Your task to perform on an android device: Go to ESPN.com Image 0: 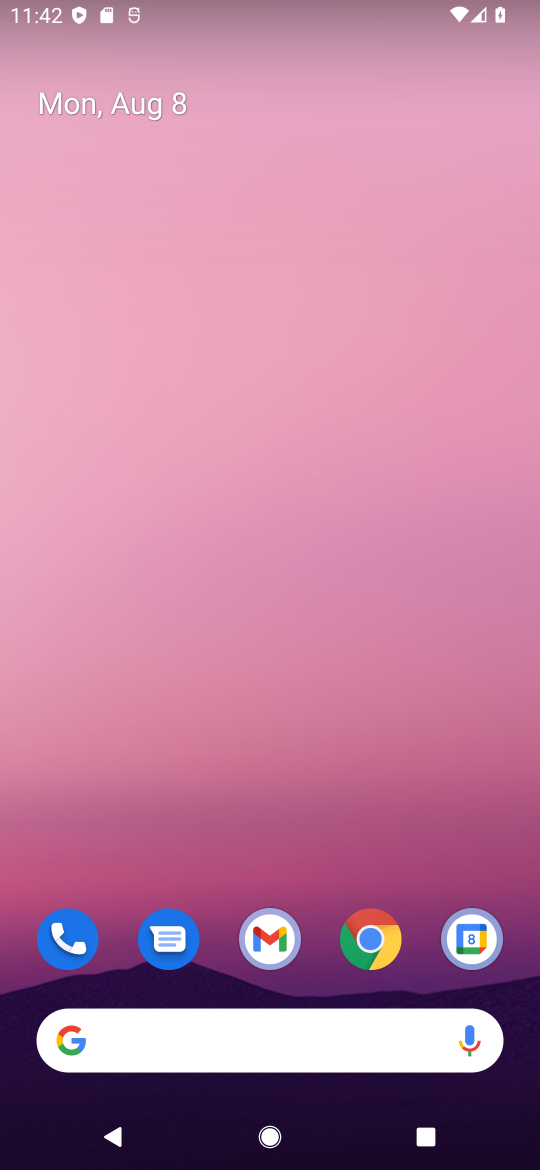
Step 0: click (366, 934)
Your task to perform on an android device: Go to ESPN.com Image 1: 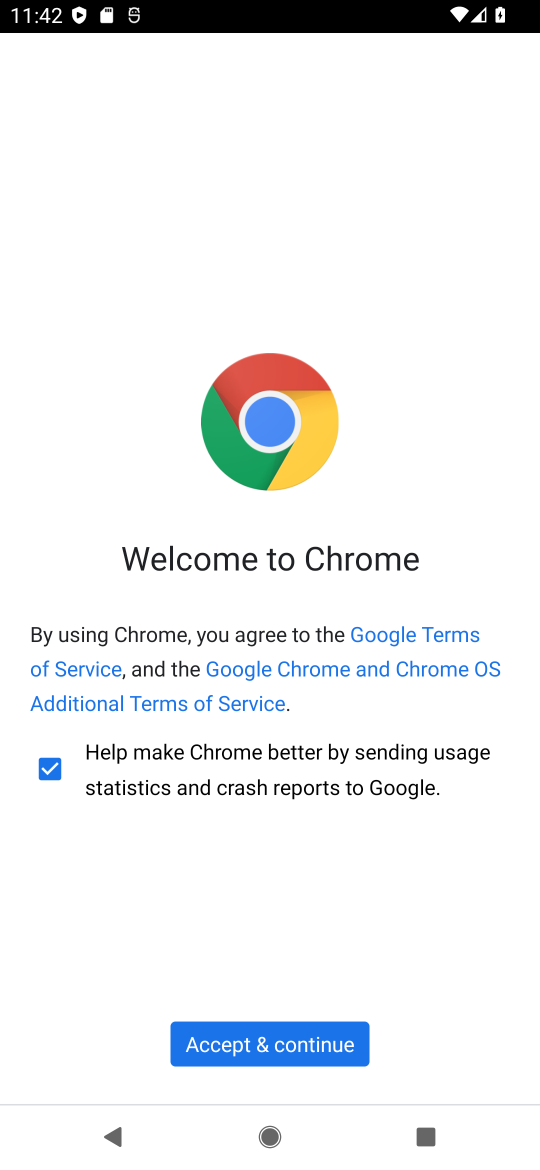
Step 1: click (294, 1054)
Your task to perform on an android device: Go to ESPN.com Image 2: 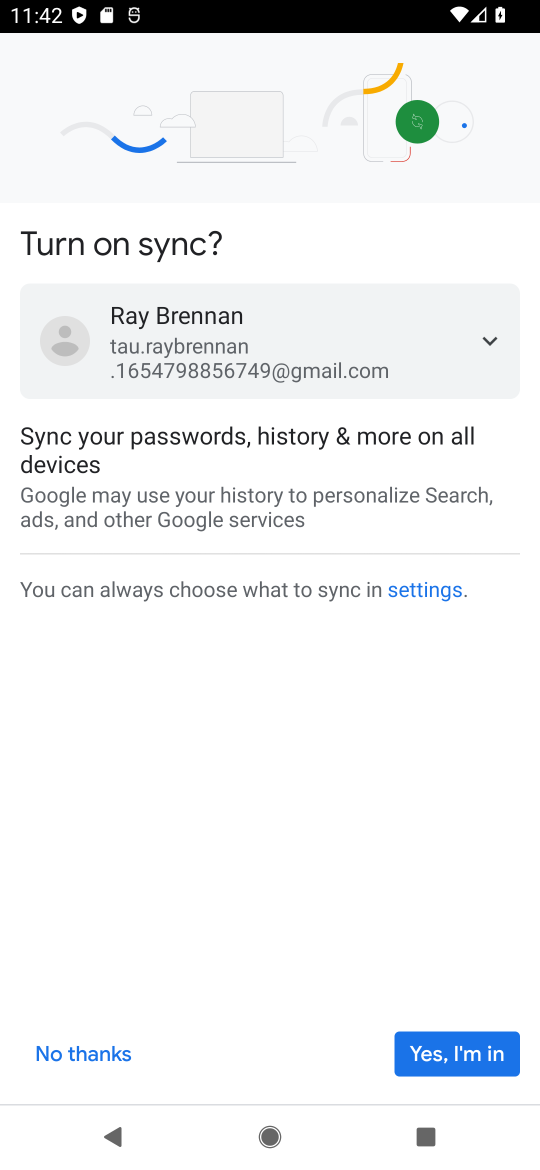
Step 2: click (434, 1049)
Your task to perform on an android device: Go to ESPN.com Image 3: 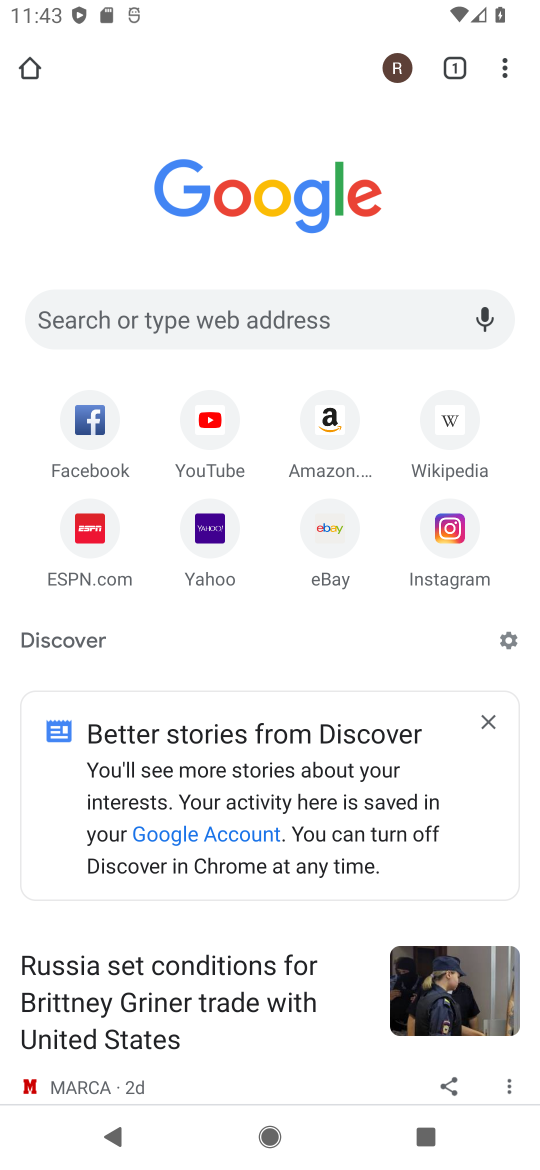
Step 3: click (95, 535)
Your task to perform on an android device: Go to ESPN.com Image 4: 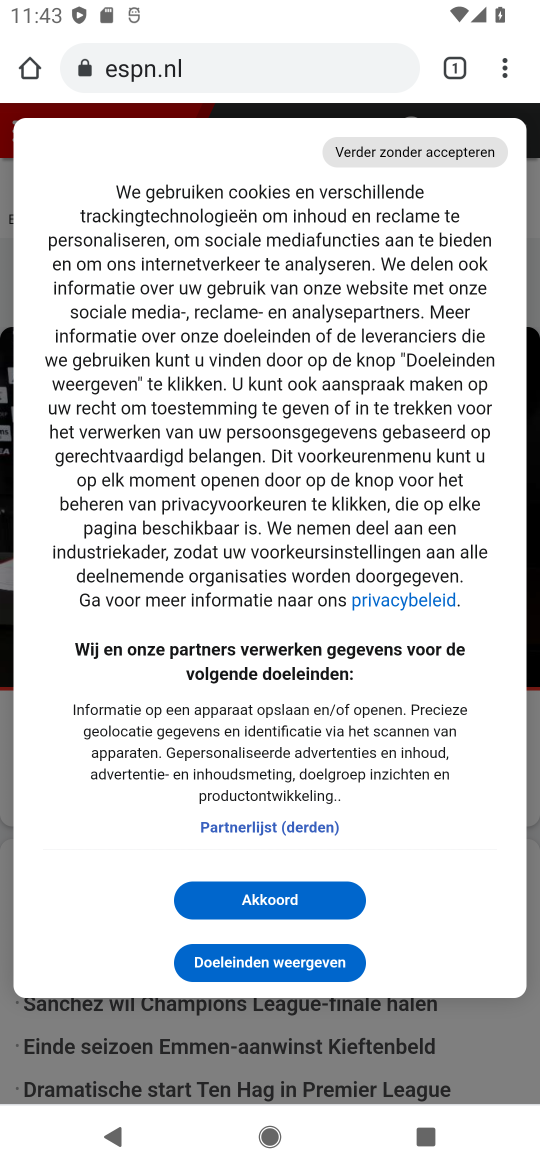
Step 4: click (276, 898)
Your task to perform on an android device: Go to ESPN.com Image 5: 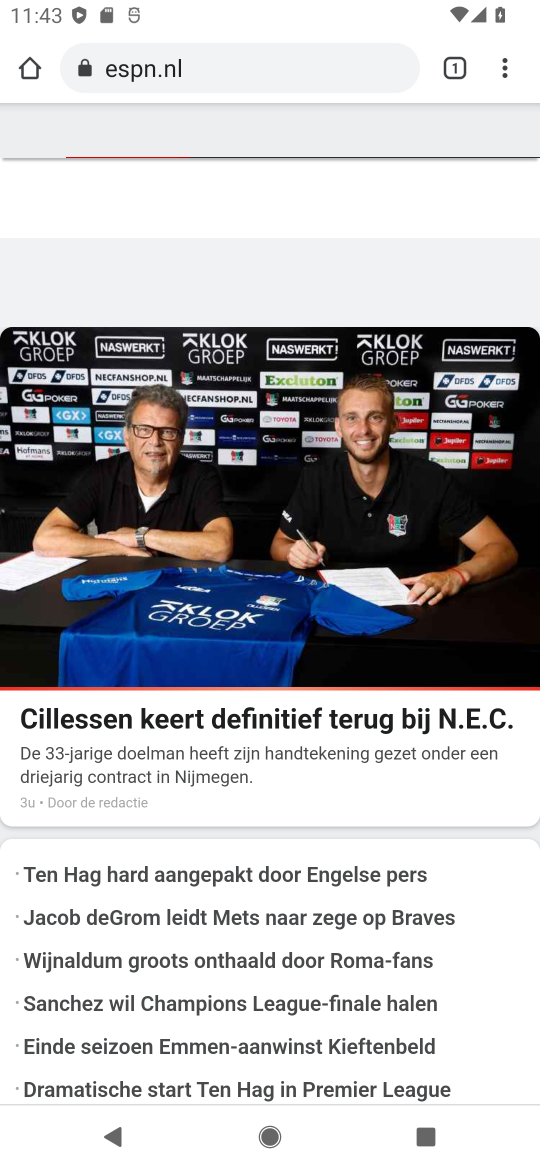
Step 5: task complete